Your task to perform on an android device: allow cookies in the chrome app Image 0: 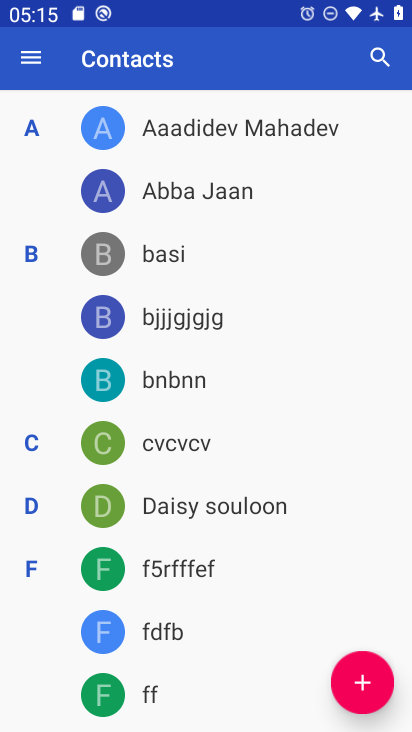
Step 0: press home button
Your task to perform on an android device: allow cookies in the chrome app Image 1: 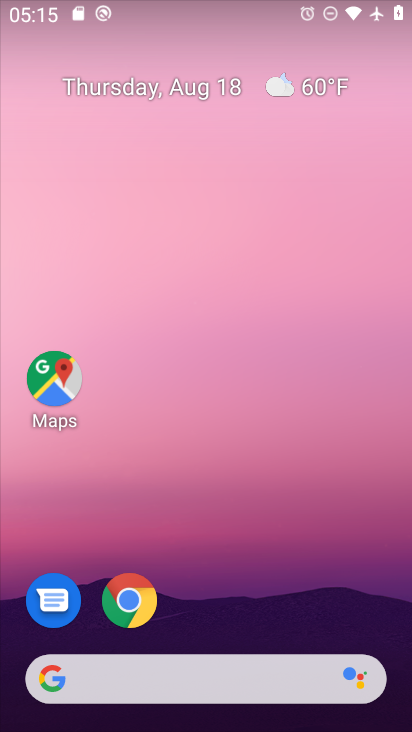
Step 1: click (134, 620)
Your task to perform on an android device: allow cookies in the chrome app Image 2: 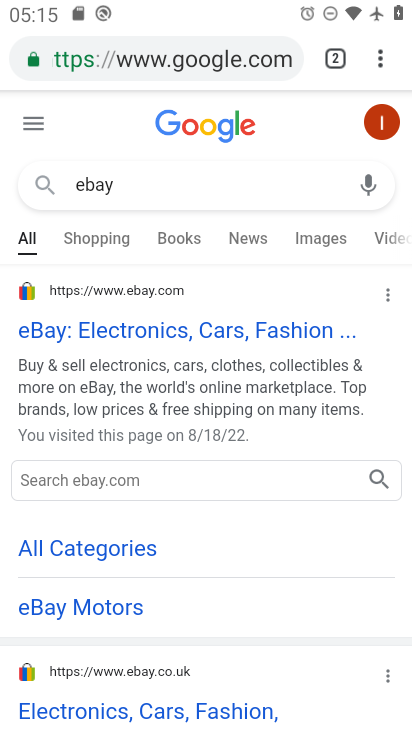
Step 2: drag from (385, 57) to (167, 635)
Your task to perform on an android device: allow cookies in the chrome app Image 3: 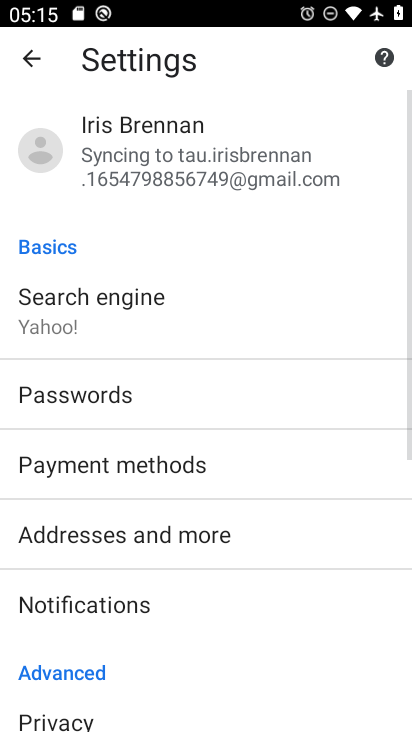
Step 3: drag from (199, 647) to (245, 215)
Your task to perform on an android device: allow cookies in the chrome app Image 4: 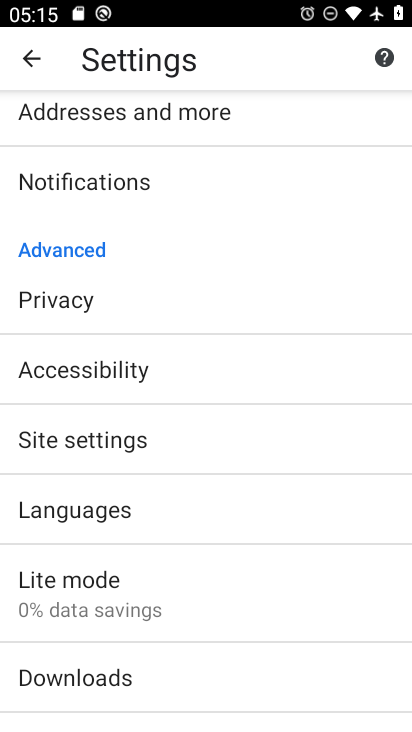
Step 4: click (66, 443)
Your task to perform on an android device: allow cookies in the chrome app Image 5: 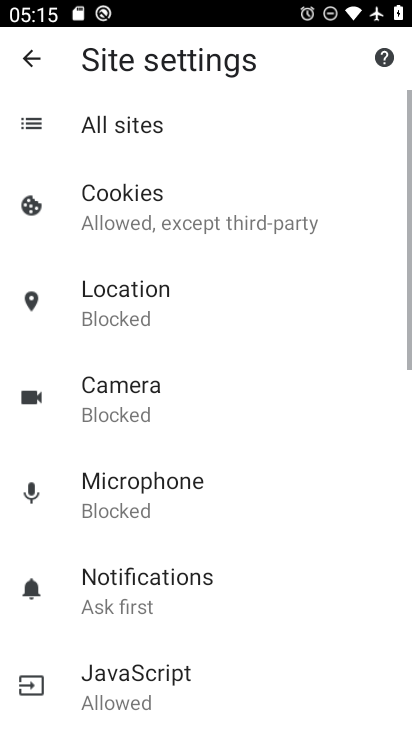
Step 5: click (117, 206)
Your task to perform on an android device: allow cookies in the chrome app Image 6: 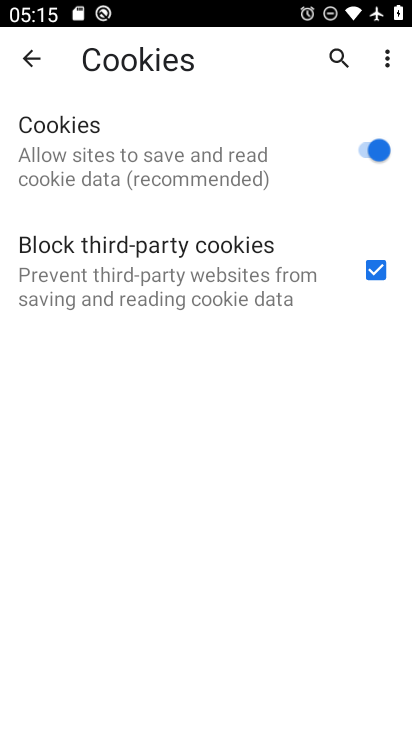
Step 6: task complete